Your task to perform on an android device: search for starred emails in the gmail app Image 0: 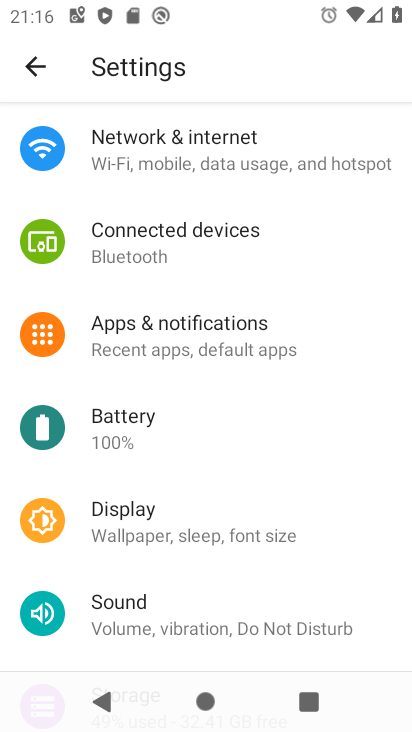
Step 0: press home button
Your task to perform on an android device: search for starred emails in the gmail app Image 1: 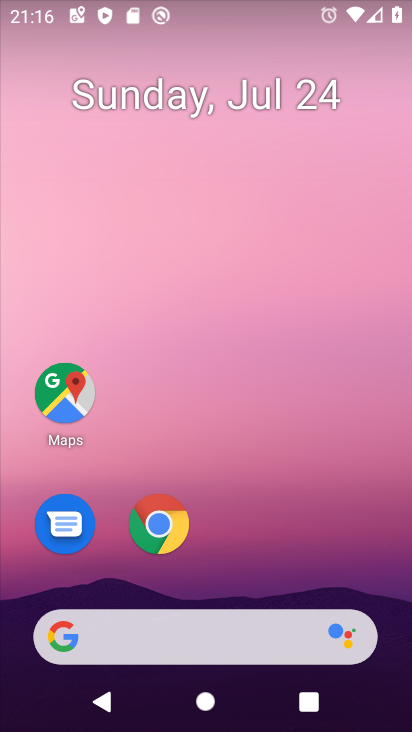
Step 1: drag from (240, 546) to (262, 1)
Your task to perform on an android device: search for starred emails in the gmail app Image 2: 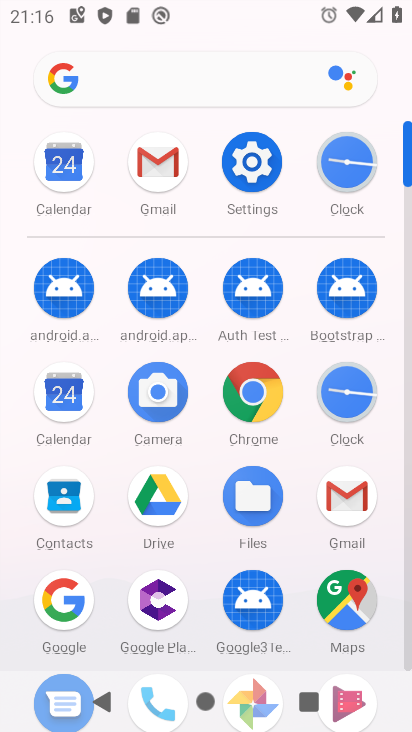
Step 2: click (169, 155)
Your task to perform on an android device: search for starred emails in the gmail app Image 3: 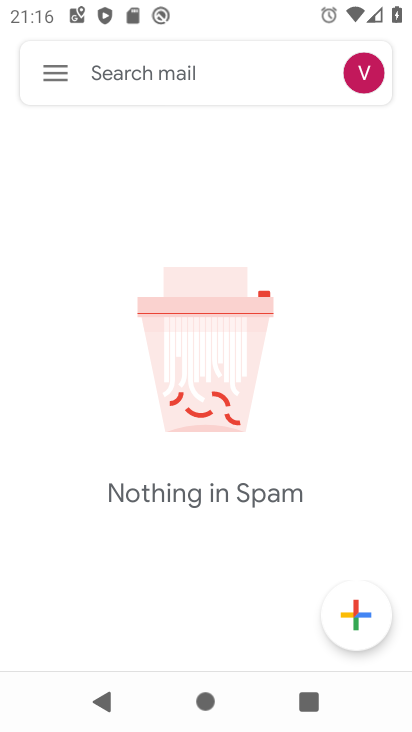
Step 3: click (63, 71)
Your task to perform on an android device: search for starred emails in the gmail app Image 4: 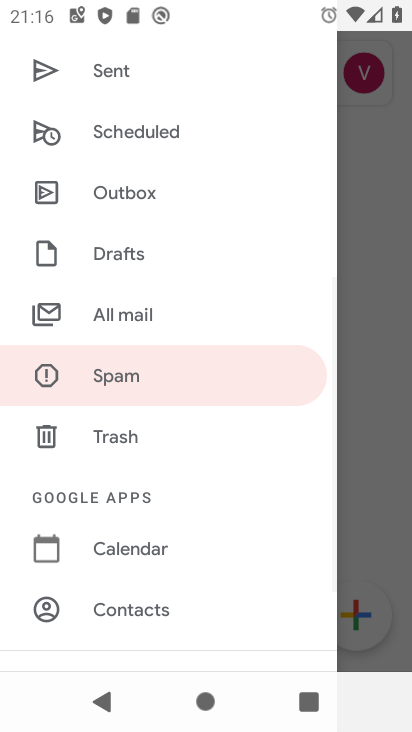
Step 4: drag from (178, 201) to (170, 536)
Your task to perform on an android device: search for starred emails in the gmail app Image 5: 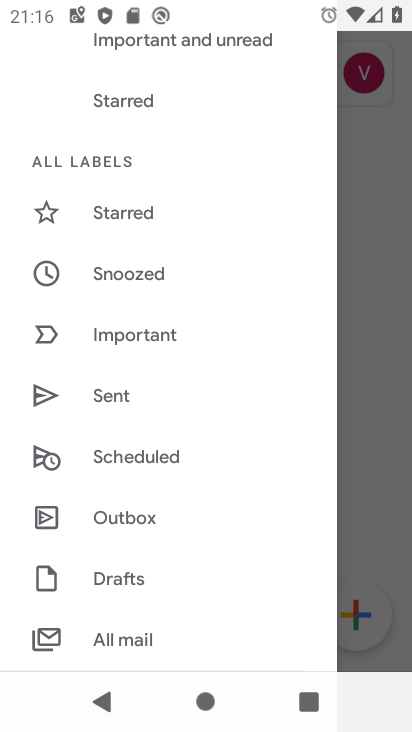
Step 5: click (153, 212)
Your task to perform on an android device: search for starred emails in the gmail app Image 6: 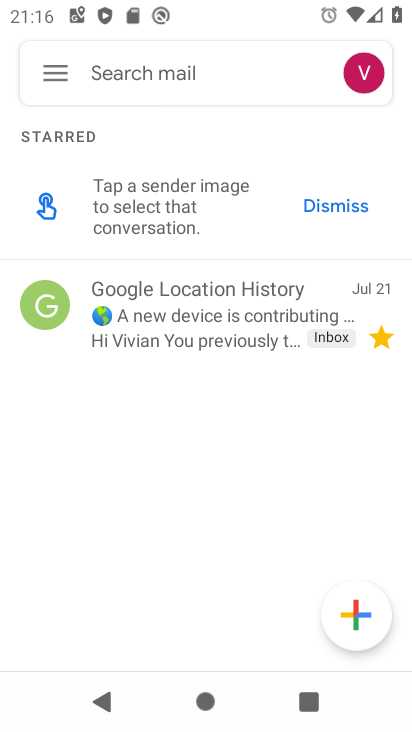
Step 6: task complete